Your task to perform on an android device: change keyboard looks Image 0: 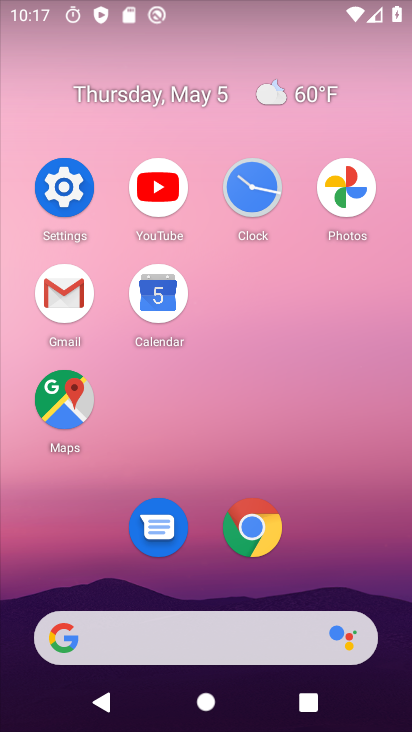
Step 0: click (75, 204)
Your task to perform on an android device: change keyboard looks Image 1: 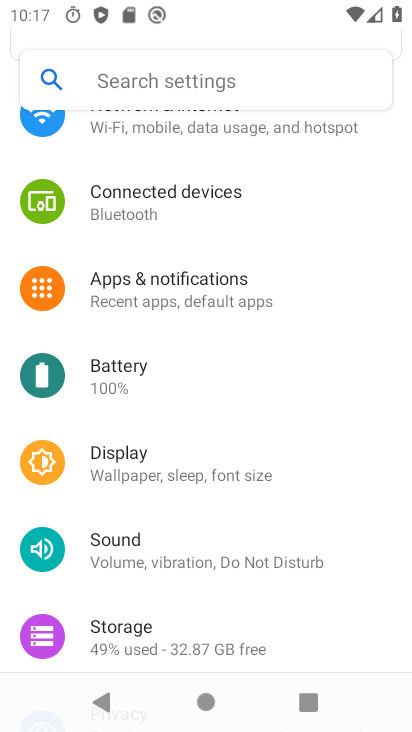
Step 1: drag from (158, 574) to (220, 142)
Your task to perform on an android device: change keyboard looks Image 2: 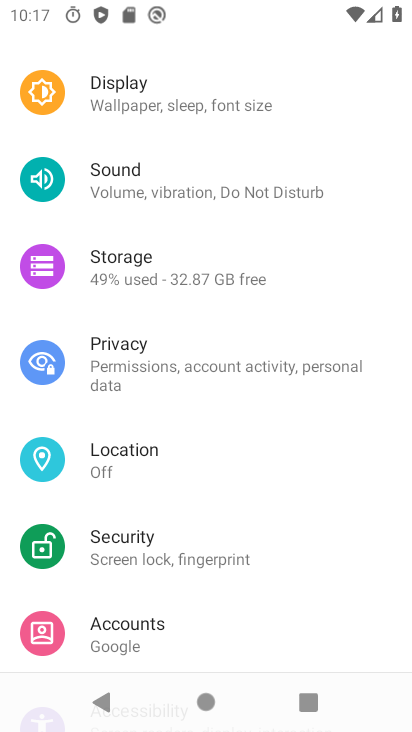
Step 2: drag from (291, 610) to (292, 142)
Your task to perform on an android device: change keyboard looks Image 3: 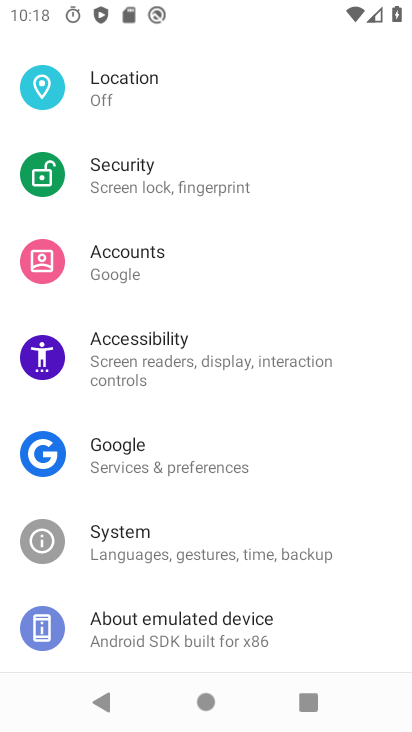
Step 3: click (222, 560)
Your task to perform on an android device: change keyboard looks Image 4: 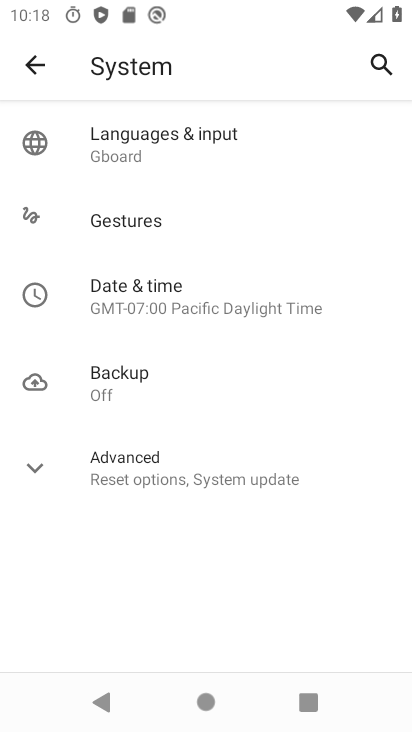
Step 4: click (249, 139)
Your task to perform on an android device: change keyboard looks Image 5: 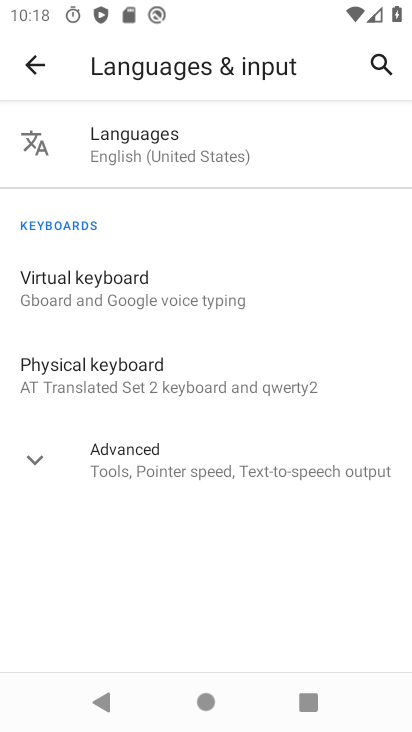
Step 5: click (185, 290)
Your task to perform on an android device: change keyboard looks Image 6: 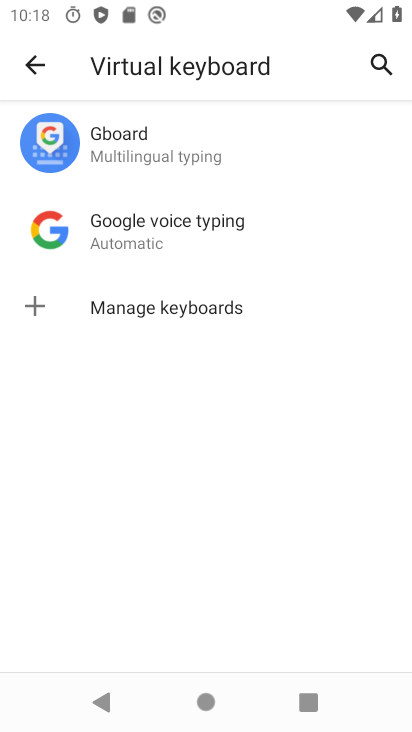
Step 6: click (174, 154)
Your task to perform on an android device: change keyboard looks Image 7: 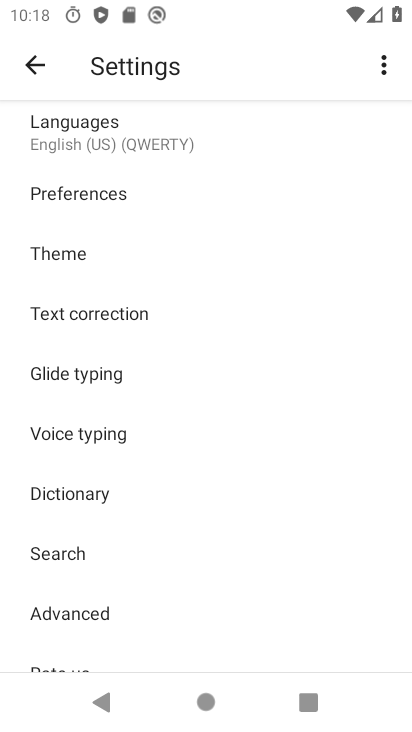
Step 7: click (83, 257)
Your task to perform on an android device: change keyboard looks Image 8: 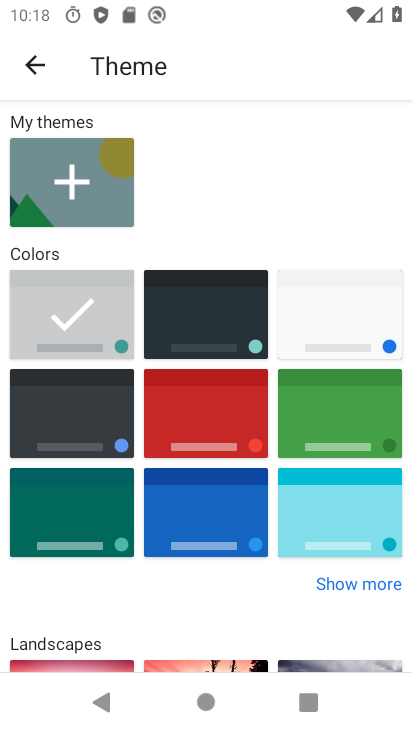
Step 8: click (256, 342)
Your task to perform on an android device: change keyboard looks Image 9: 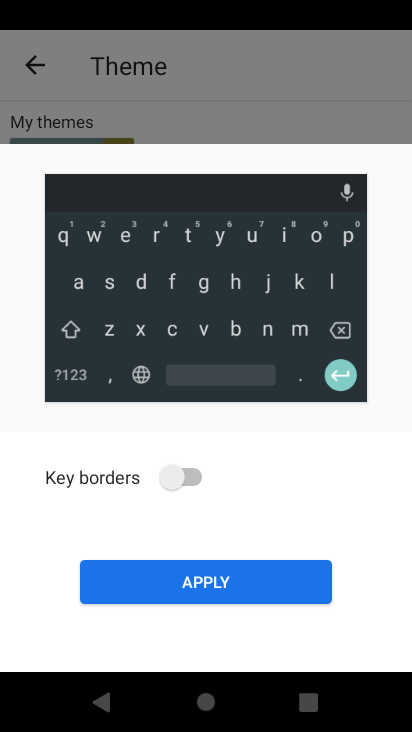
Step 9: click (172, 475)
Your task to perform on an android device: change keyboard looks Image 10: 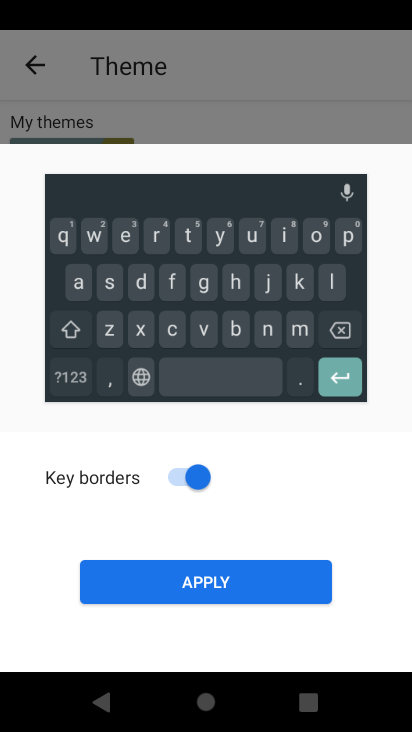
Step 10: click (220, 584)
Your task to perform on an android device: change keyboard looks Image 11: 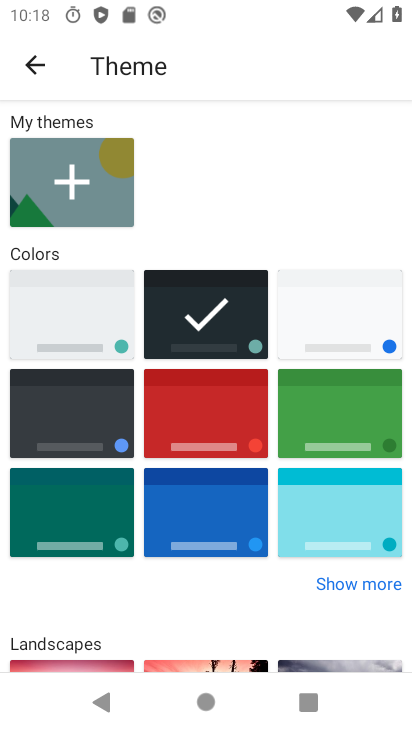
Step 11: task complete